Your task to perform on an android device: Clear the cart on bestbuy. Search for "amazon basics triple a" on bestbuy, select the first entry, add it to the cart, then select checkout. Image 0: 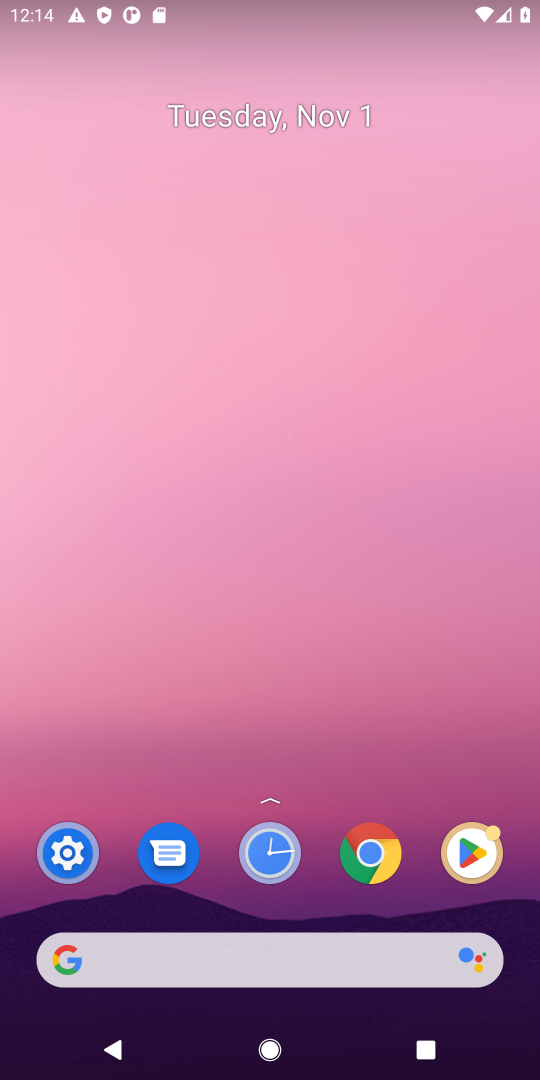
Step 0: click (312, 954)
Your task to perform on an android device: Clear the cart on bestbuy. Search for "amazon basics triple a" on bestbuy, select the first entry, add it to the cart, then select checkout. Image 1: 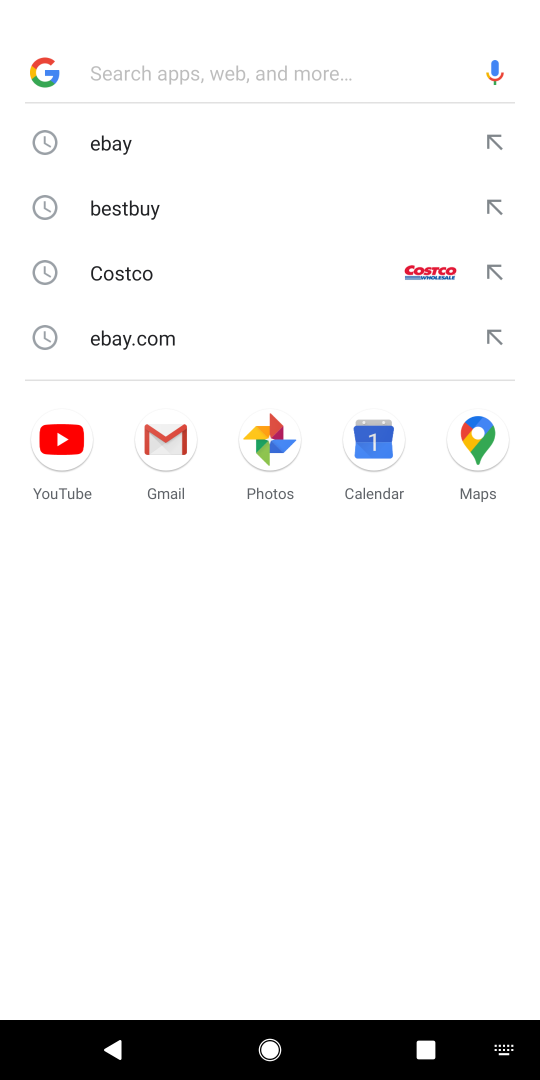
Step 1: click (102, 220)
Your task to perform on an android device: Clear the cart on bestbuy. Search for "amazon basics triple a" on bestbuy, select the first entry, add it to the cart, then select checkout. Image 2: 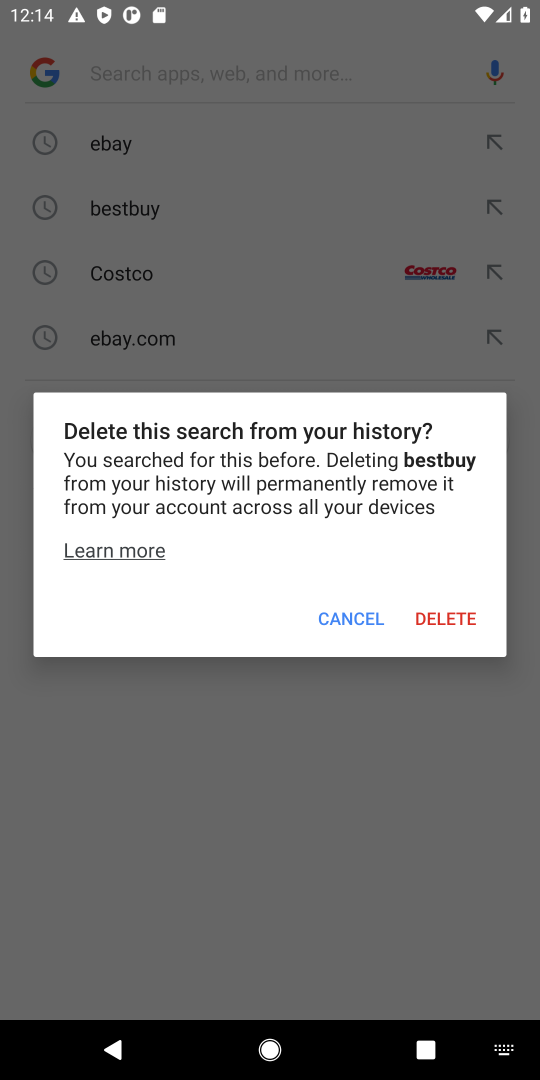
Step 2: click (358, 614)
Your task to perform on an android device: Clear the cart on bestbuy. Search for "amazon basics triple a" on bestbuy, select the first entry, add it to the cart, then select checkout. Image 3: 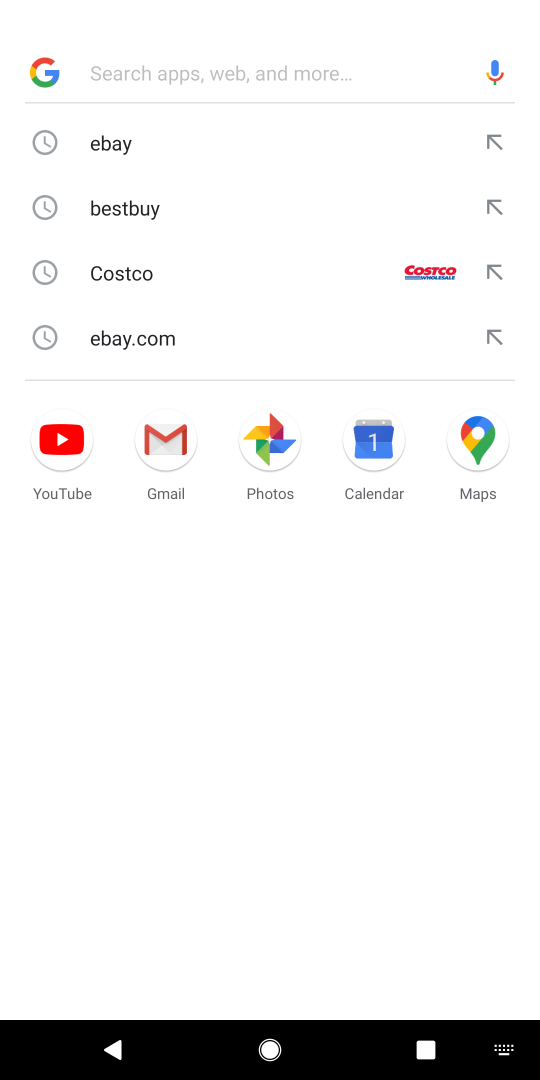
Step 3: click (167, 217)
Your task to perform on an android device: Clear the cart on bestbuy. Search for "amazon basics triple a" on bestbuy, select the first entry, add it to the cart, then select checkout. Image 4: 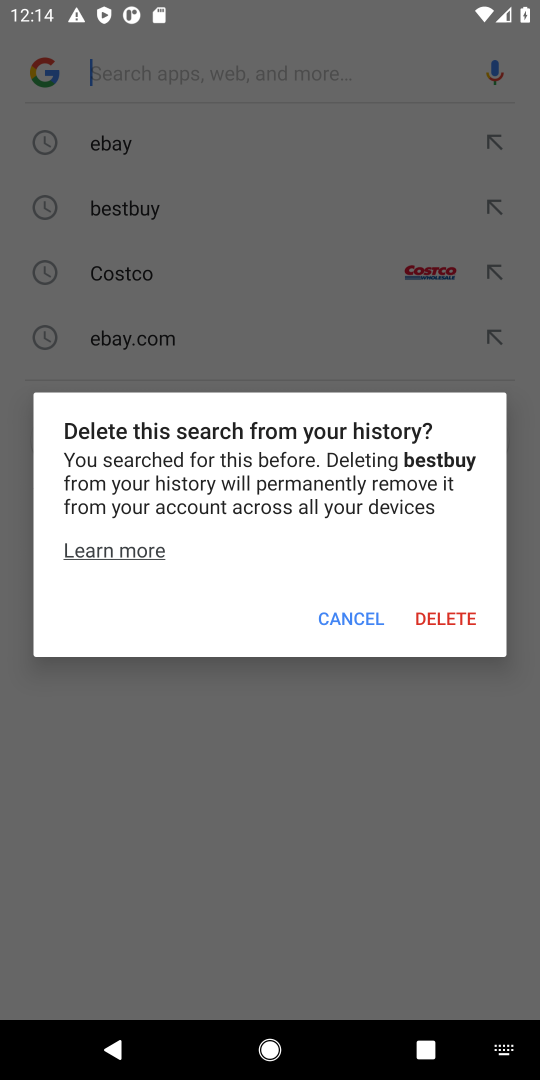
Step 4: click (146, 217)
Your task to perform on an android device: Clear the cart on bestbuy. Search for "amazon basics triple a" on bestbuy, select the first entry, add it to the cart, then select checkout. Image 5: 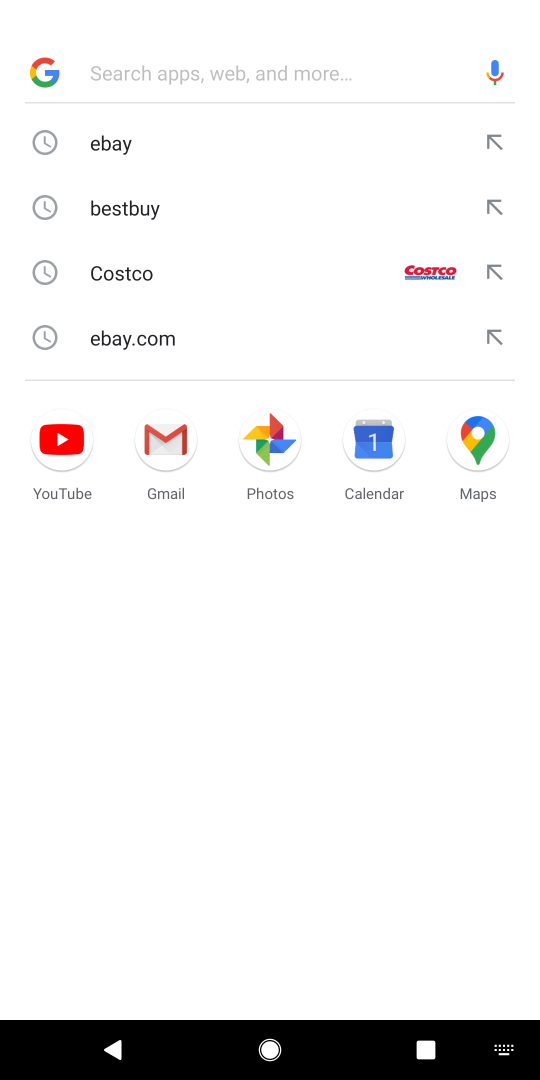
Step 5: click (359, 611)
Your task to perform on an android device: Clear the cart on bestbuy. Search for "amazon basics triple a" on bestbuy, select the first entry, add it to the cart, then select checkout. Image 6: 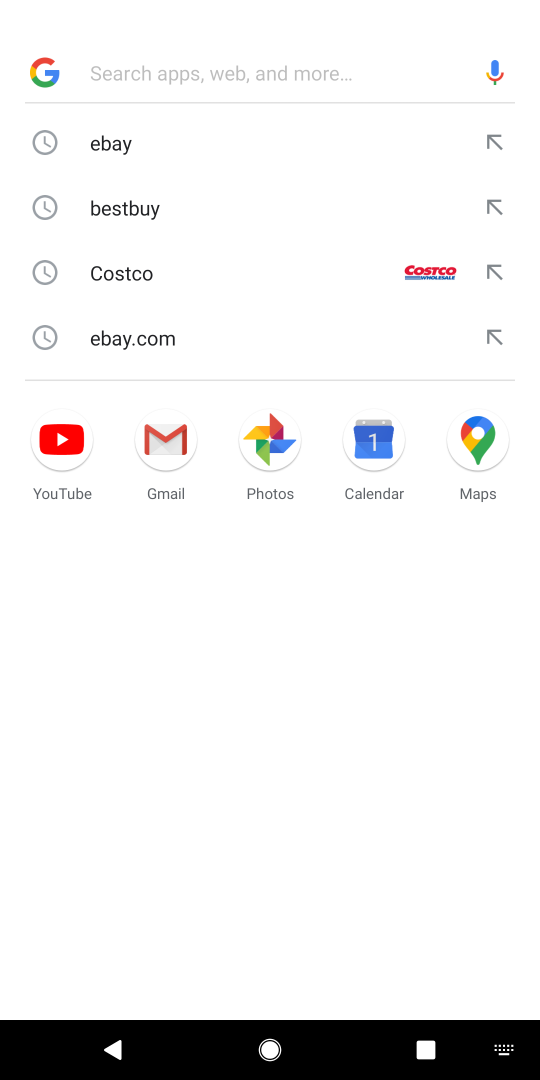
Step 6: type "bose quietcomfort 35"
Your task to perform on an android device: Clear the cart on bestbuy. Search for "amazon basics triple a" on bestbuy, select the first entry, add it to the cart, then select checkout. Image 7: 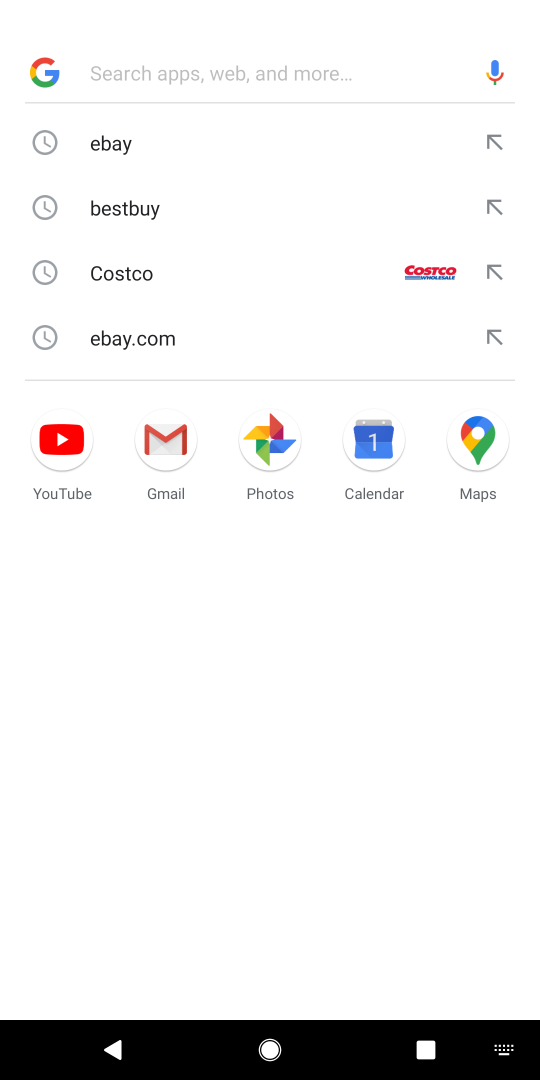
Step 7: click (169, 92)
Your task to perform on an android device: Clear the cart on bestbuy. Search for "amazon basics triple a" on bestbuy, select the first entry, add it to the cart, then select checkout. Image 8: 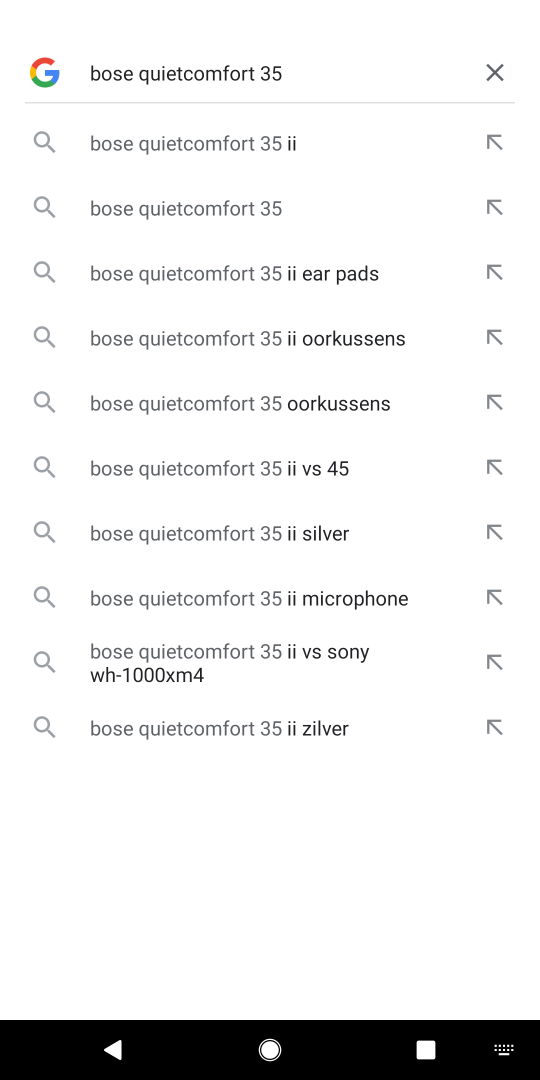
Step 8: type "bestbuy"
Your task to perform on an android device: Clear the cart on bestbuy. Search for "amazon basics triple a" on bestbuy, select the first entry, add it to the cart, then select checkout. Image 9: 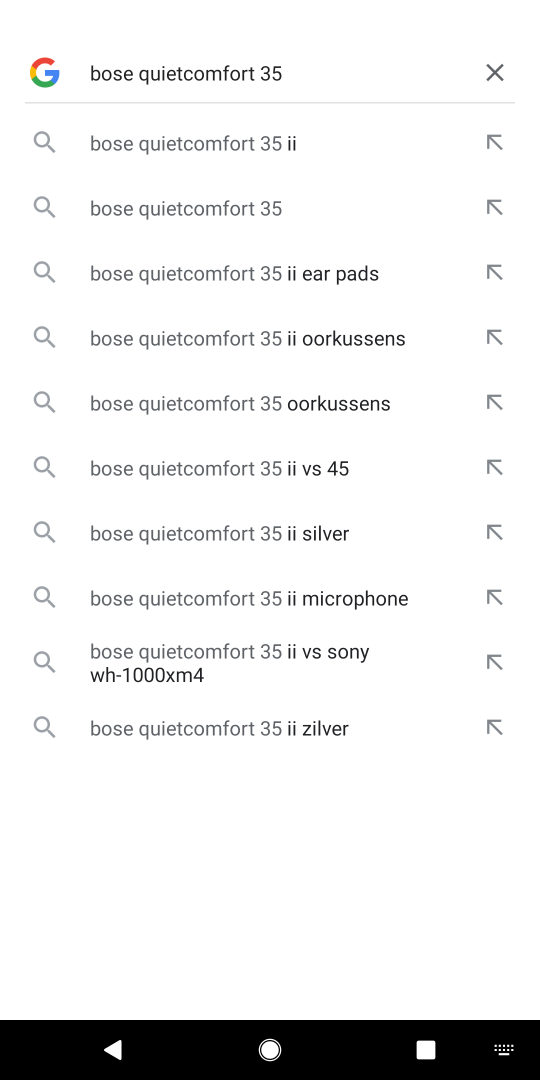
Step 9: click (495, 82)
Your task to perform on an android device: Clear the cart on bestbuy. Search for "amazon basics triple a" on bestbuy, select the first entry, add it to the cart, then select checkout. Image 10: 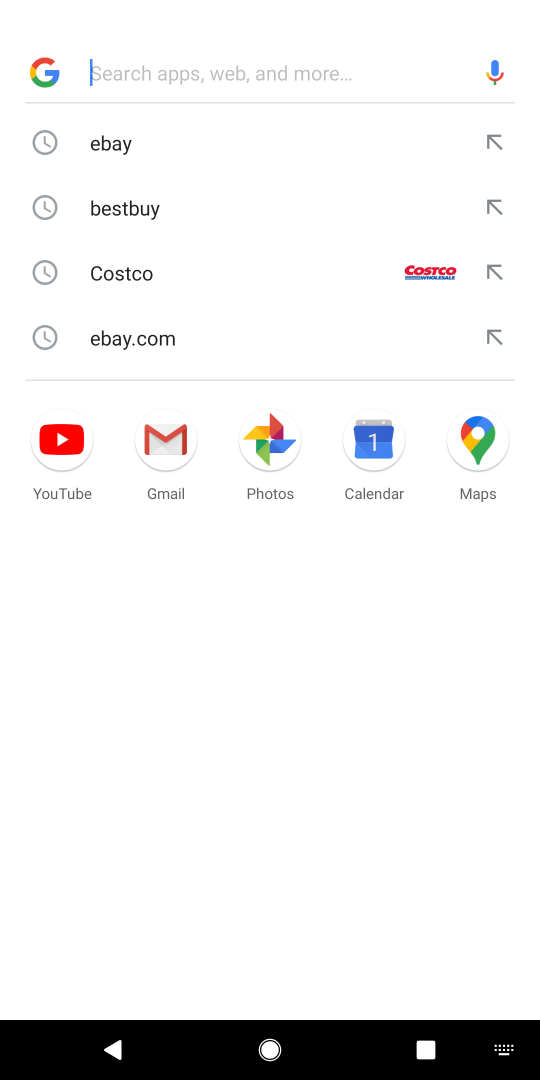
Step 10: click (484, 75)
Your task to perform on an android device: Clear the cart on bestbuy. Search for "amazon basics triple a" on bestbuy, select the first entry, add it to the cart, then select checkout. Image 11: 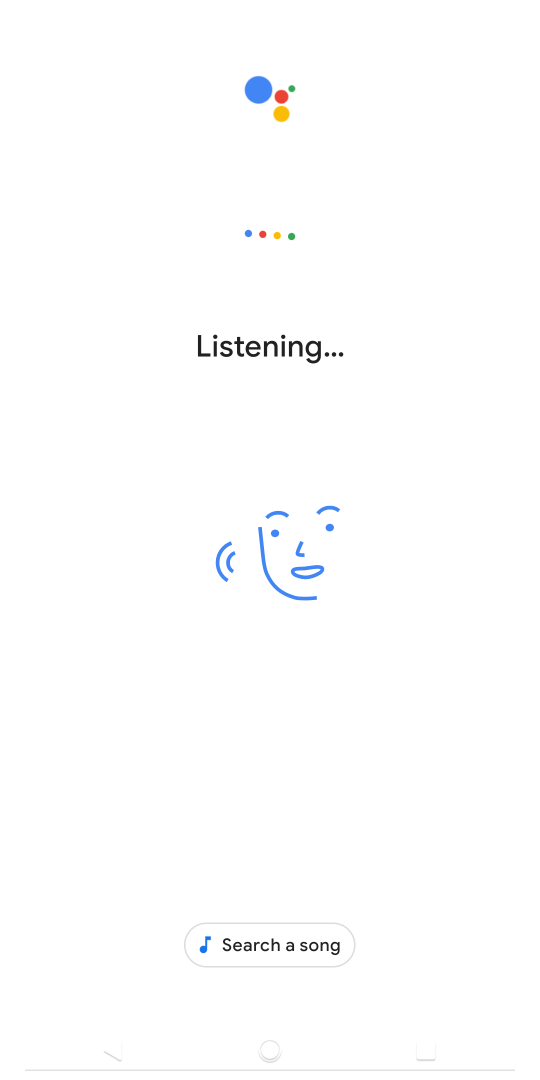
Step 11: press back button
Your task to perform on an android device: Clear the cart on bestbuy. Search for "amazon basics triple a" on bestbuy, select the first entry, add it to the cart, then select checkout. Image 12: 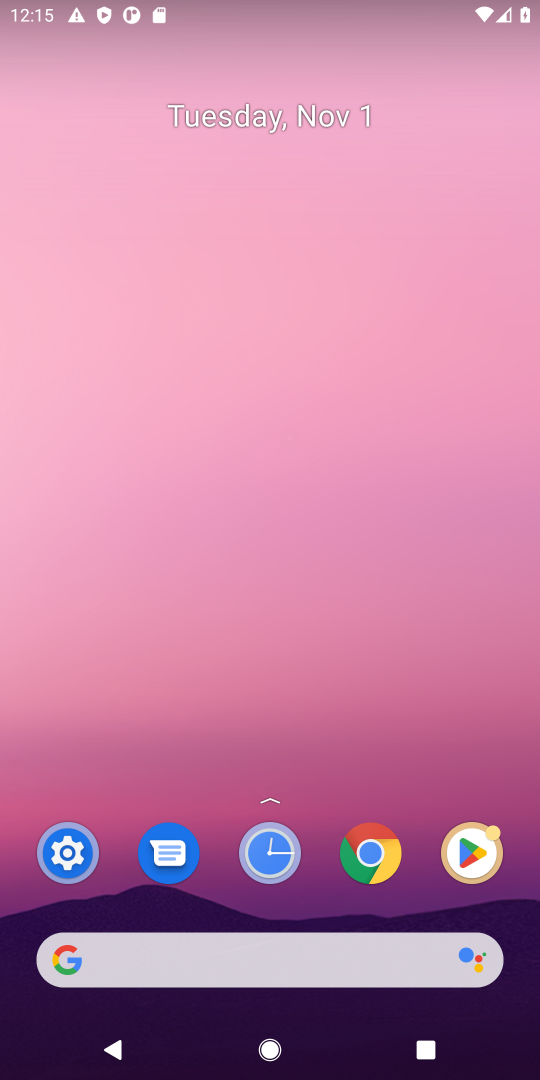
Step 12: click (229, 951)
Your task to perform on an android device: Clear the cart on bestbuy. Search for "amazon basics triple a" on bestbuy, select the first entry, add it to the cart, then select checkout. Image 13: 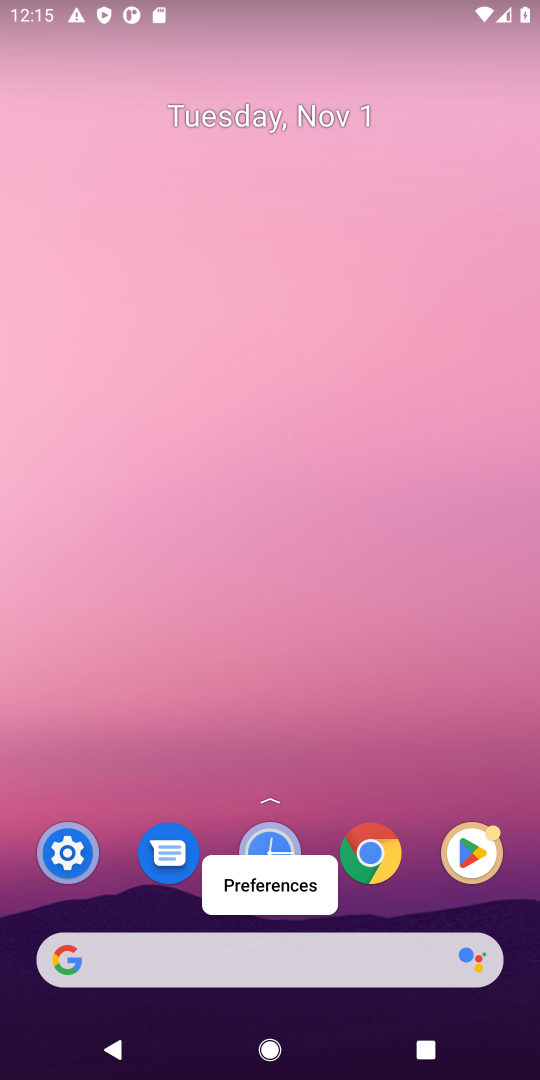
Step 13: click (224, 955)
Your task to perform on an android device: Clear the cart on bestbuy. Search for "amazon basics triple a" on bestbuy, select the first entry, add it to the cart, then select checkout. Image 14: 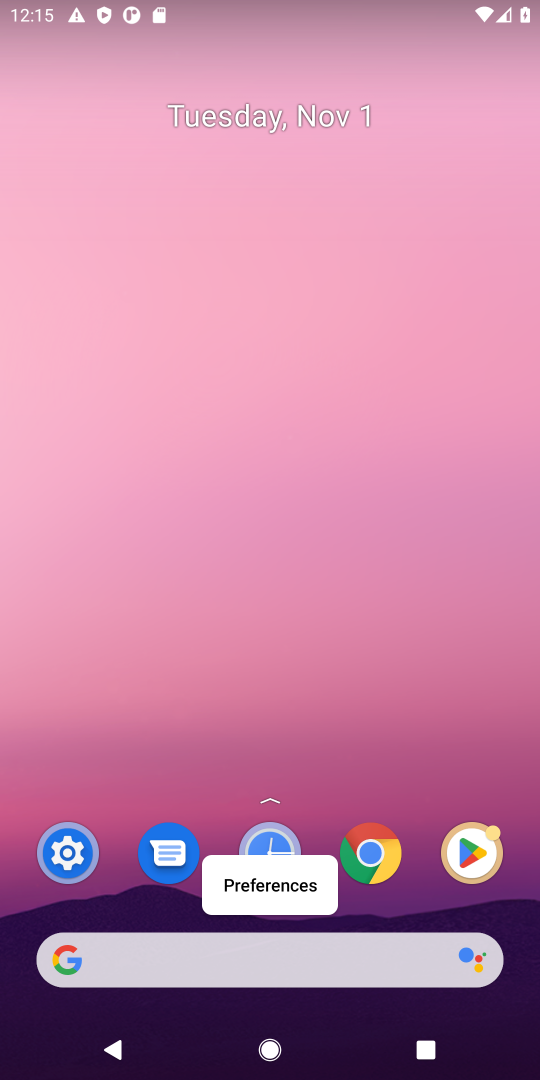
Step 14: click (221, 975)
Your task to perform on an android device: Clear the cart on bestbuy. Search for "amazon basics triple a" on bestbuy, select the first entry, add it to the cart, then select checkout. Image 15: 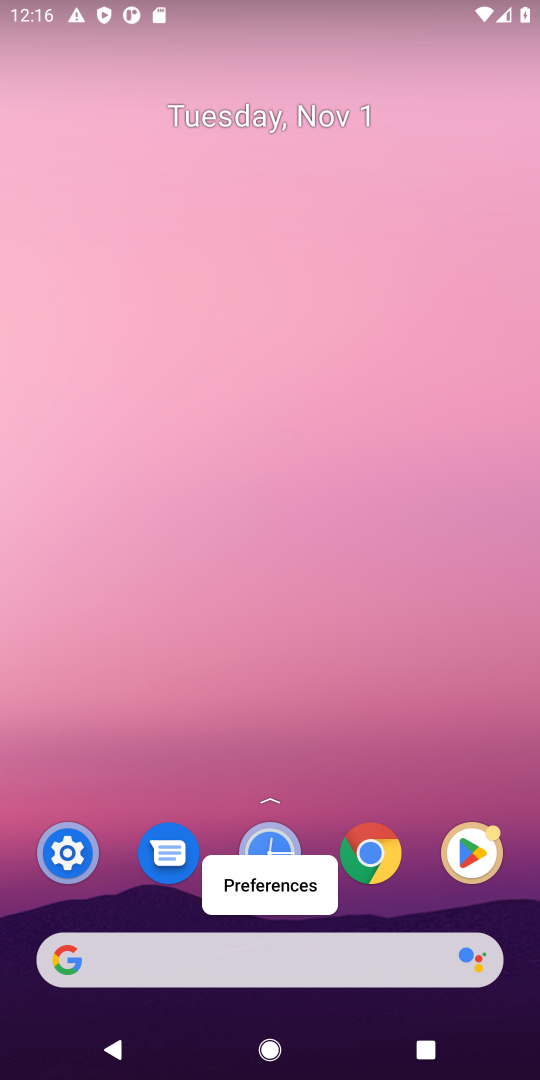
Step 15: click (214, 976)
Your task to perform on an android device: Clear the cart on bestbuy. Search for "amazon basics triple a" on bestbuy, select the first entry, add it to the cart, then select checkout. Image 16: 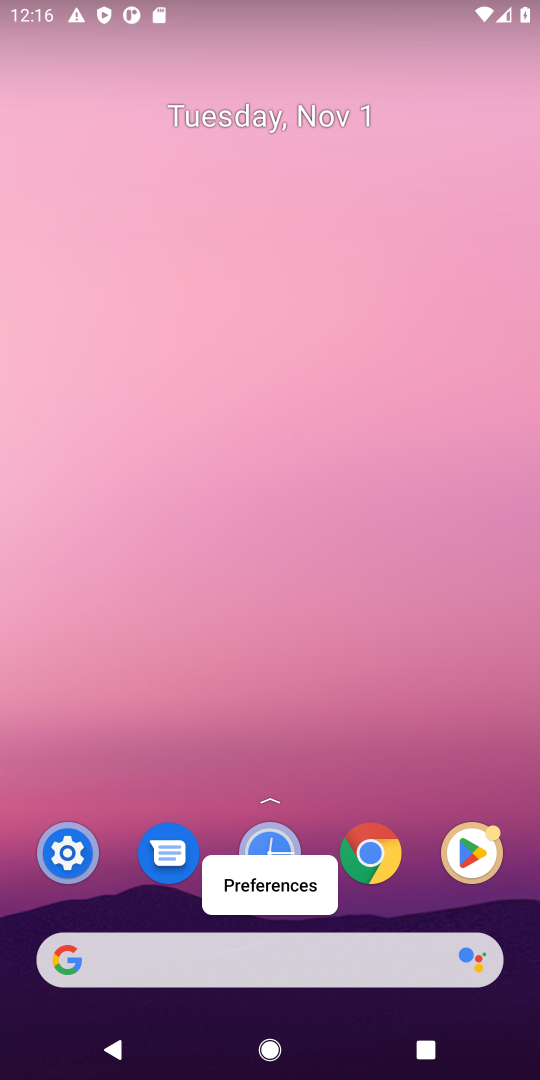
Step 16: click (214, 976)
Your task to perform on an android device: Clear the cart on bestbuy. Search for "amazon basics triple a" on bestbuy, select the first entry, add it to the cart, then select checkout. Image 17: 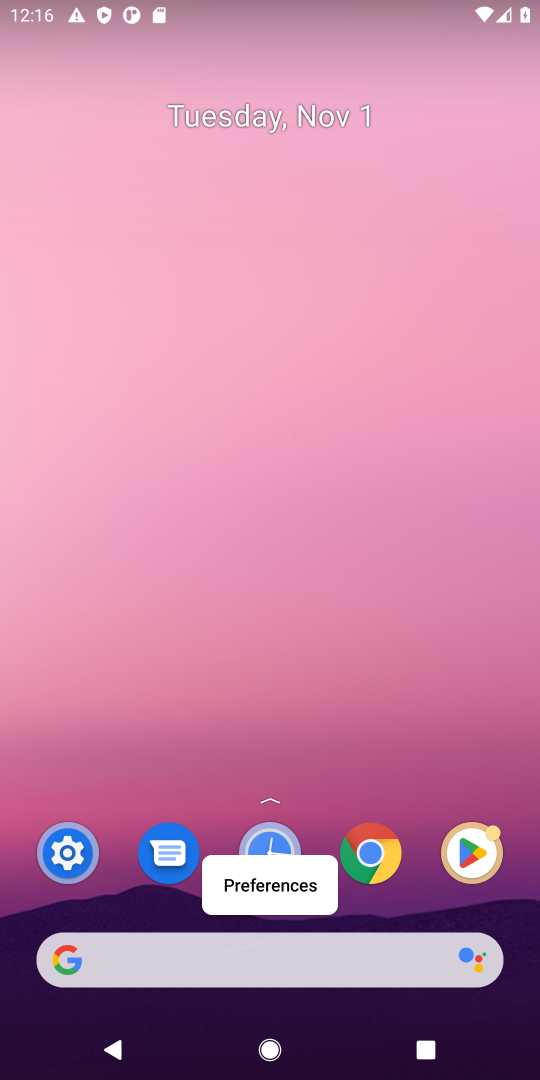
Step 17: click (183, 976)
Your task to perform on an android device: Clear the cart on bestbuy. Search for "amazon basics triple a" on bestbuy, select the first entry, add it to the cart, then select checkout. Image 18: 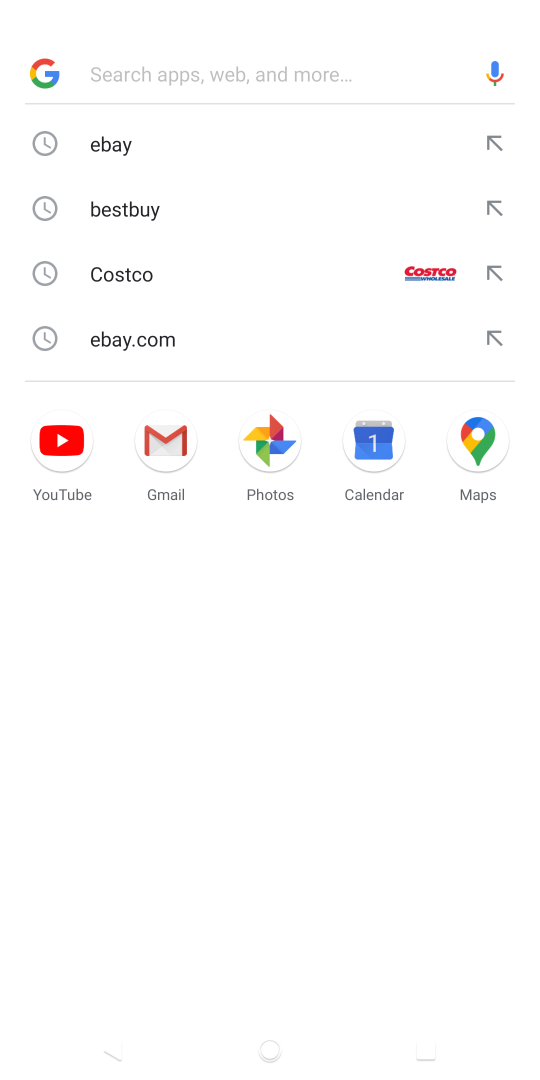
Step 18: click (183, 976)
Your task to perform on an android device: Clear the cart on bestbuy. Search for "amazon basics triple a" on bestbuy, select the first entry, add it to the cart, then select checkout. Image 19: 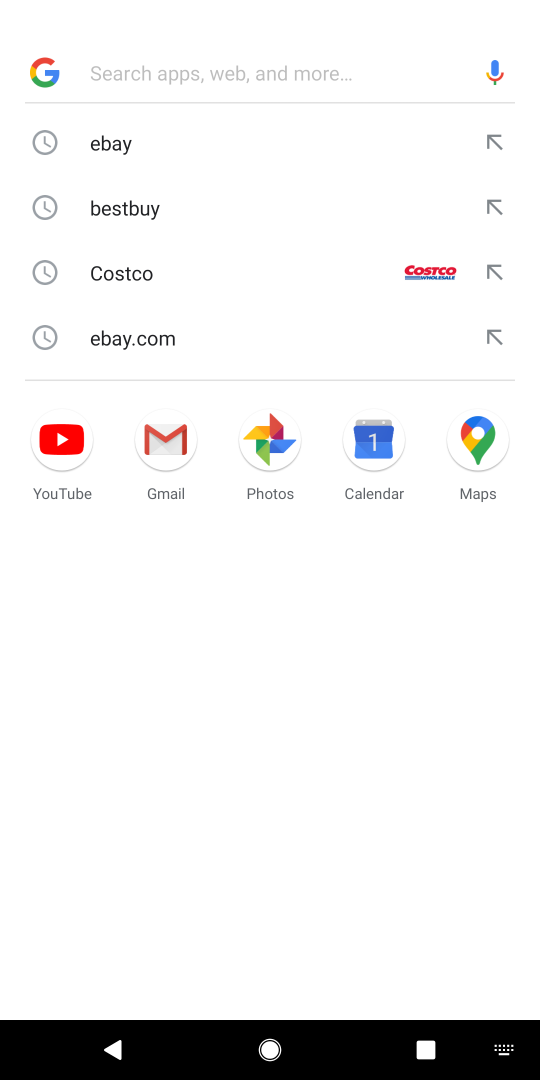
Step 19: type "bestbuy"
Your task to perform on an android device: Clear the cart on bestbuy. Search for "amazon basics triple a" on bestbuy, select the first entry, add it to the cart, then select checkout. Image 20: 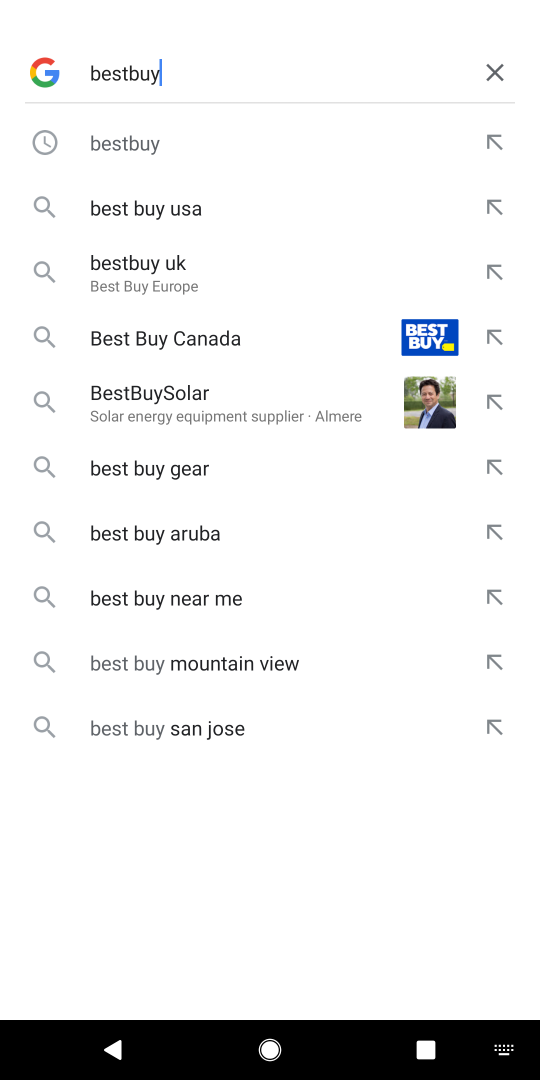
Step 20: press enter
Your task to perform on an android device: Clear the cart on bestbuy. Search for "amazon basics triple a" on bestbuy, select the first entry, add it to the cart, then select checkout. Image 21: 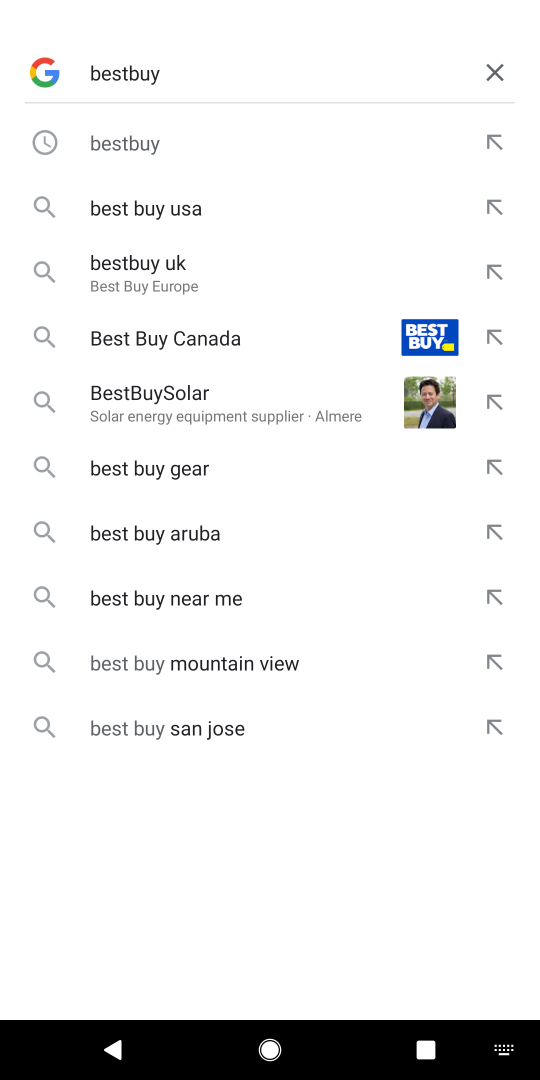
Step 21: type ""
Your task to perform on an android device: Clear the cart on bestbuy. Search for "amazon basics triple a" on bestbuy, select the first entry, add it to the cart, then select checkout. Image 22: 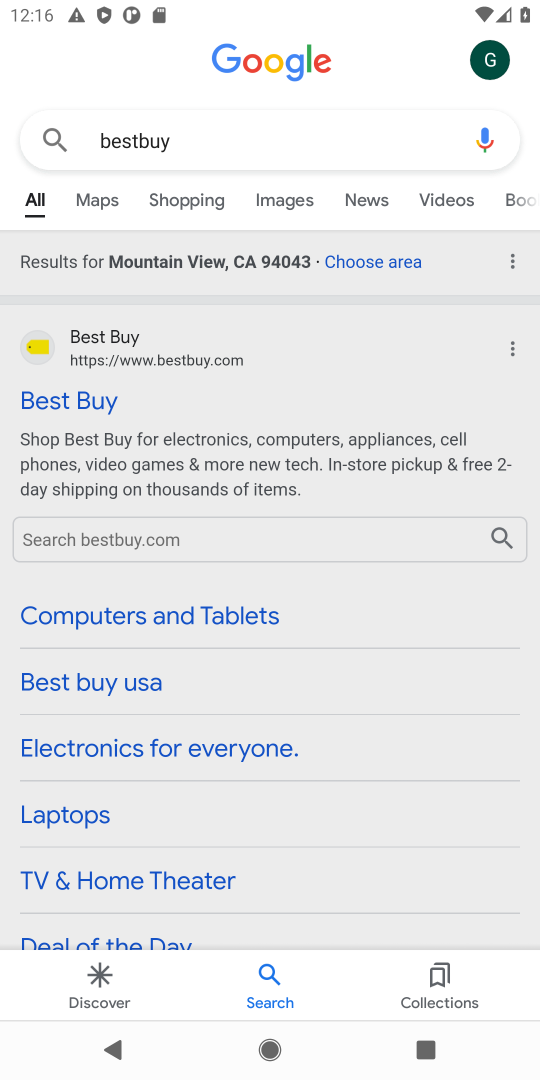
Step 22: press enter
Your task to perform on an android device: Clear the cart on bestbuy. Search for "amazon basics triple a" on bestbuy, select the first entry, add it to the cart, then select checkout. Image 23: 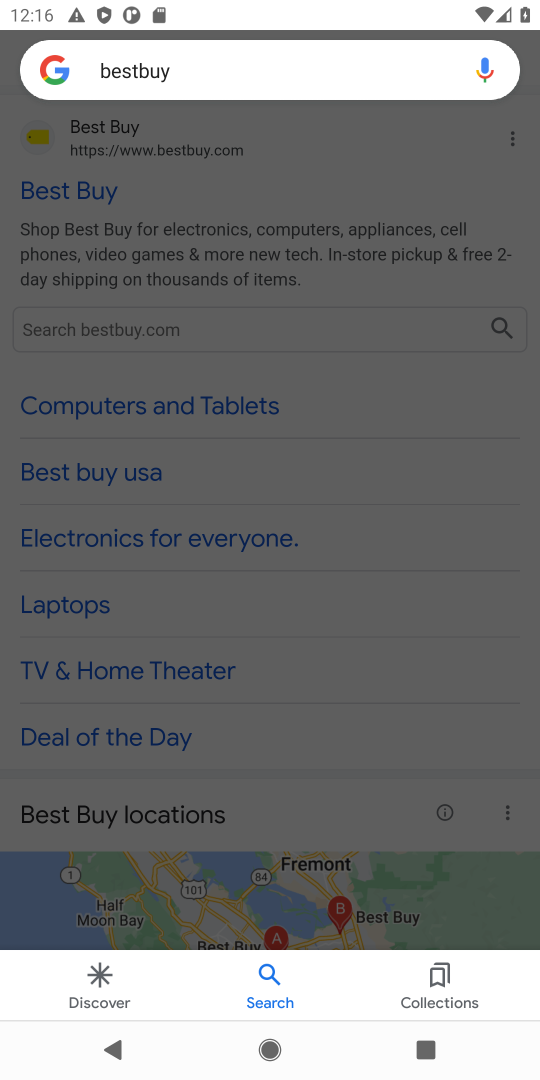
Step 23: click (99, 384)
Your task to perform on an android device: Clear the cart on bestbuy. Search for "amazon basics triple a" on bestbuy, select the first entry, add it to the cart, then select checkout. Image 24: 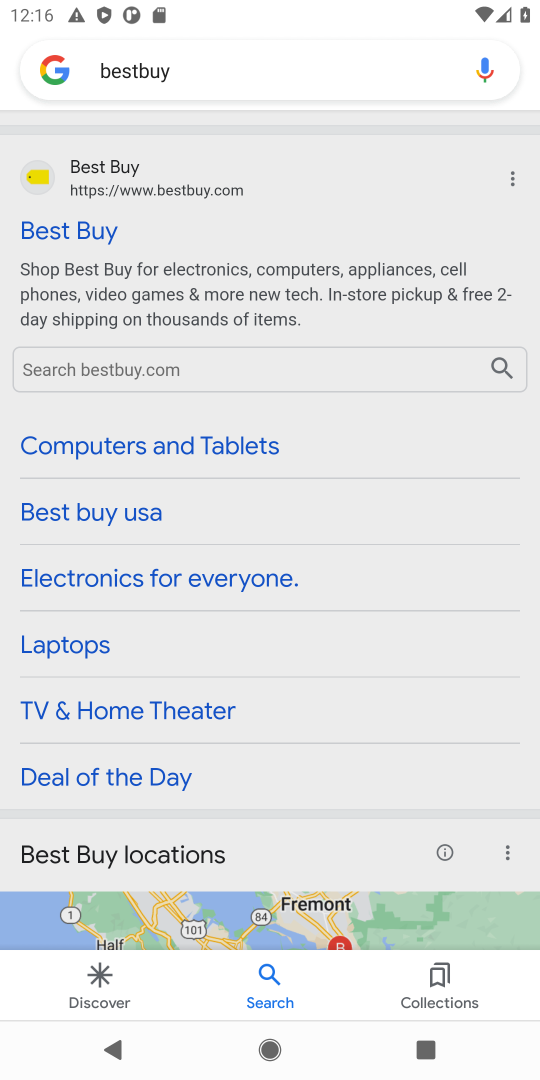
Step 24: click (101, 230)
Your task to perform on an android device: Clear the cart on bestbuy. Search for "amazon basics triple a" on bestbuy, select the first entry, add it to the cart, then select checkout. Image 25: 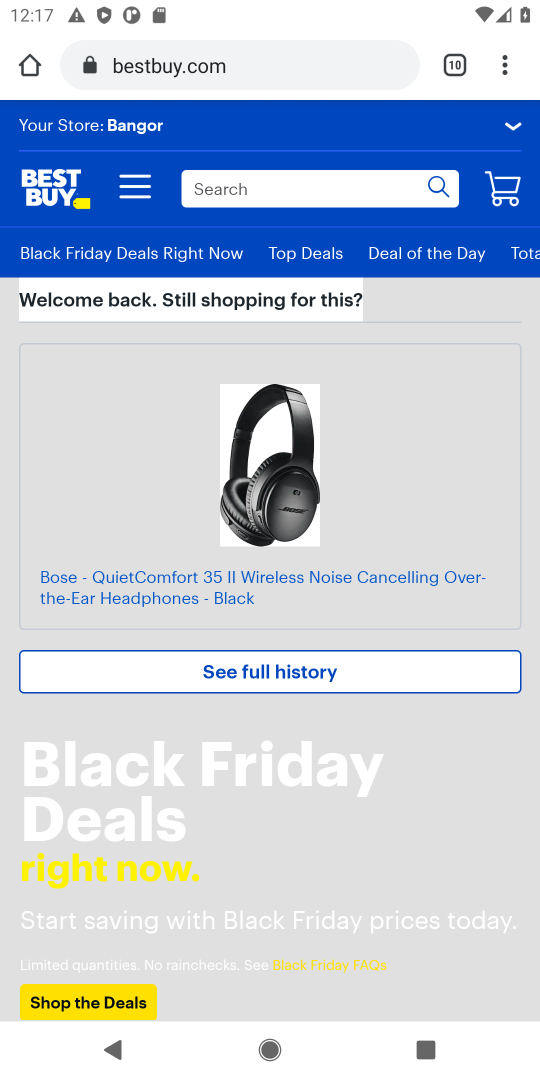
Step 25: click (212, 191)
Your task to perform on an android device: Clear the cart on bestbuy. Search for "amazon basics triple a" on bestbuy, select the first entry, add it to the cart, then select checkout. Image 26: 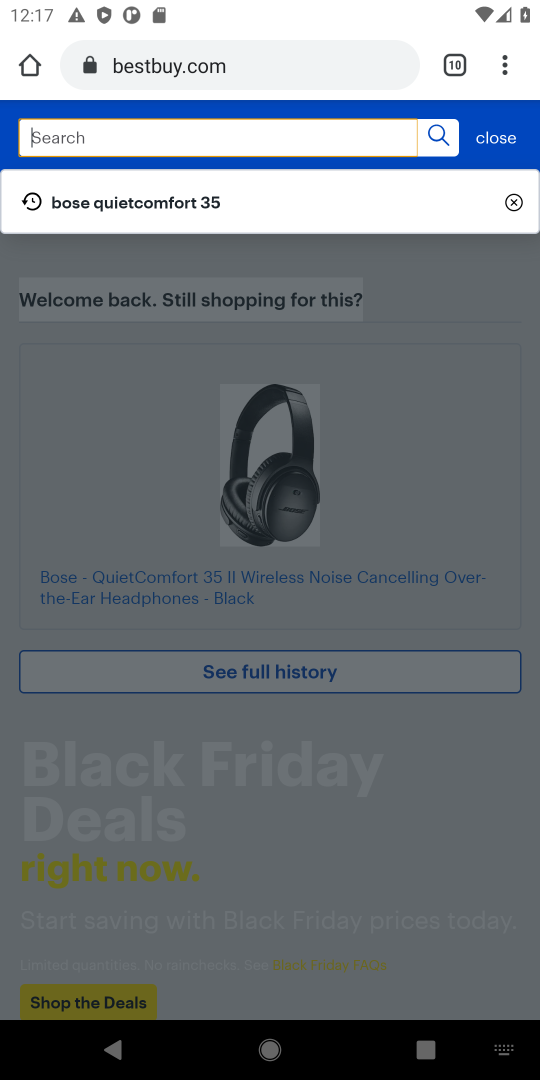
Step 26: type "amazon basics triple a"
Your task to perform on an android device: Clear the cart on bestbuy. Search for "amazon basics triple a" on bestbuy, select the first entry, add it to the cart, then select checkout. Image 27: 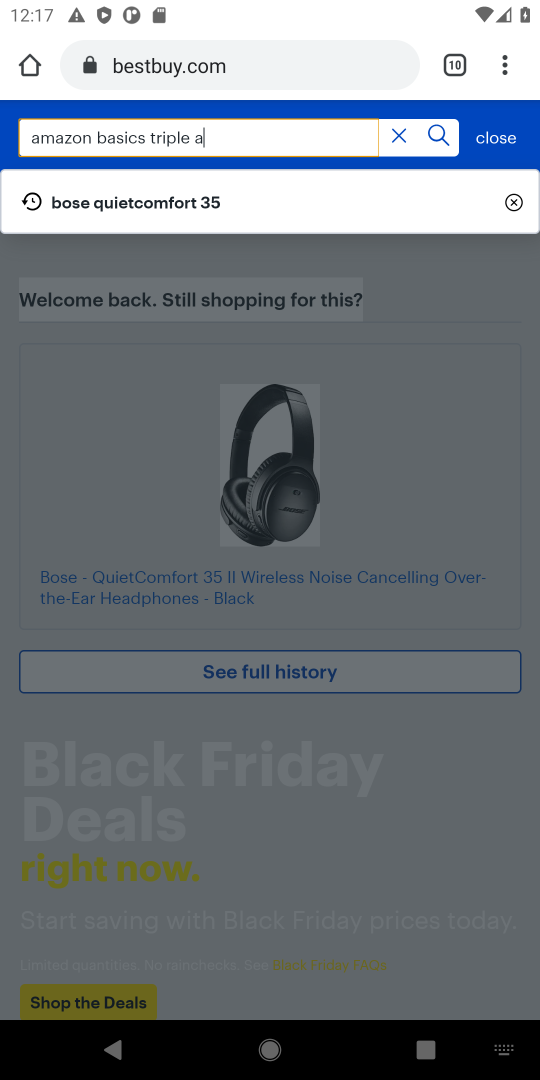
Step 27: type ""
Your task to perform on an android device: Clear the cart on bestbuy. Search for "amazon basics triple a" on bestbuy, select the first entry, add it to the cart, then select checkout. Image 28: 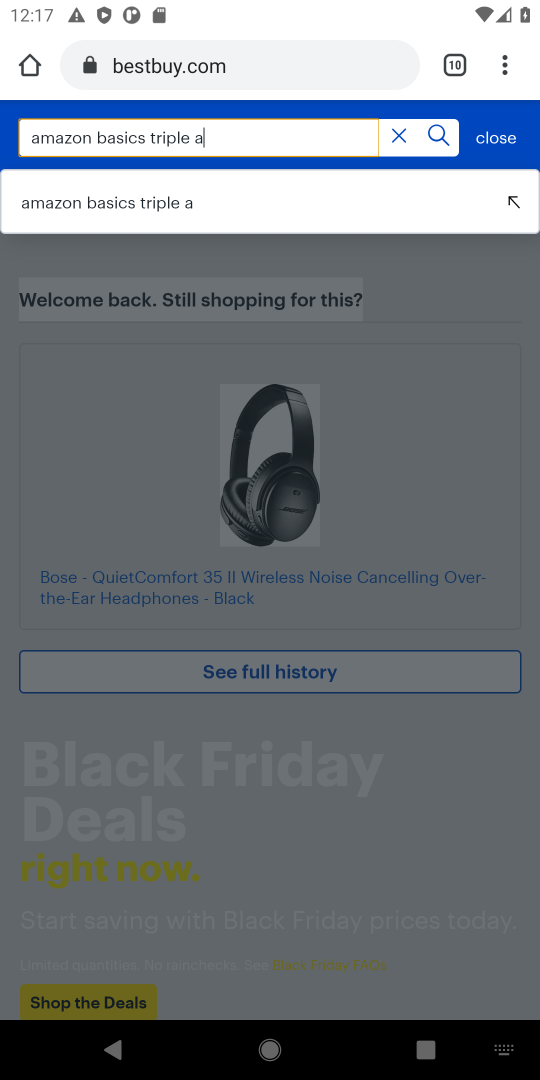
Step 28: type ""
Your task to perform on an android device: Clear the cart on bestbuy. Search for "amazon basics triple a" on bestbuy, select the first entry, add it to the cart, then select checkout. Image 29: 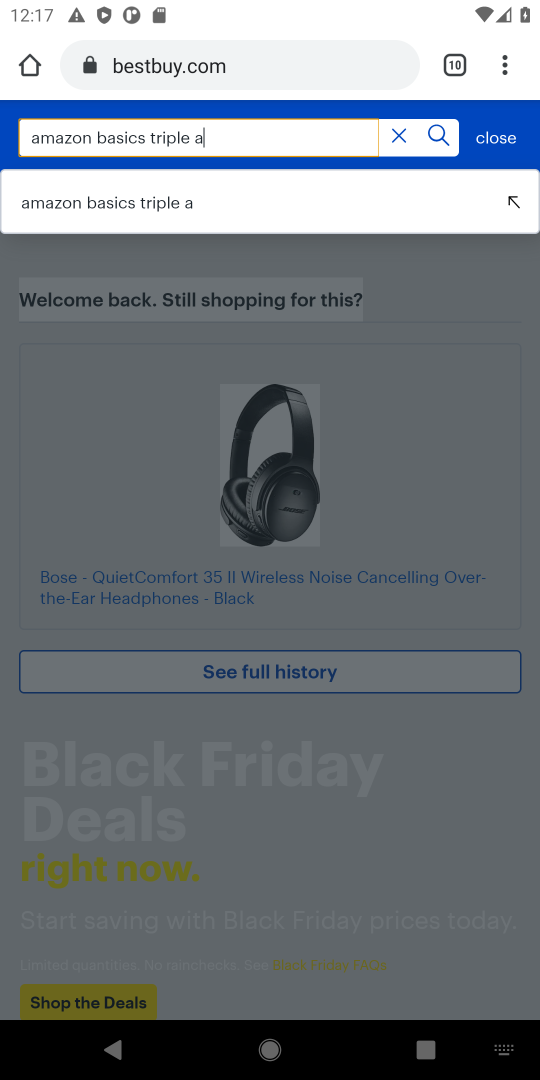
Step 29: type ""
Your task to perform on an android device: Clear the cart on bestbuy. Search for "amazon basics triple a" on bestbuy, select the first entry, add it to the cart, then select checkout. Image 30: 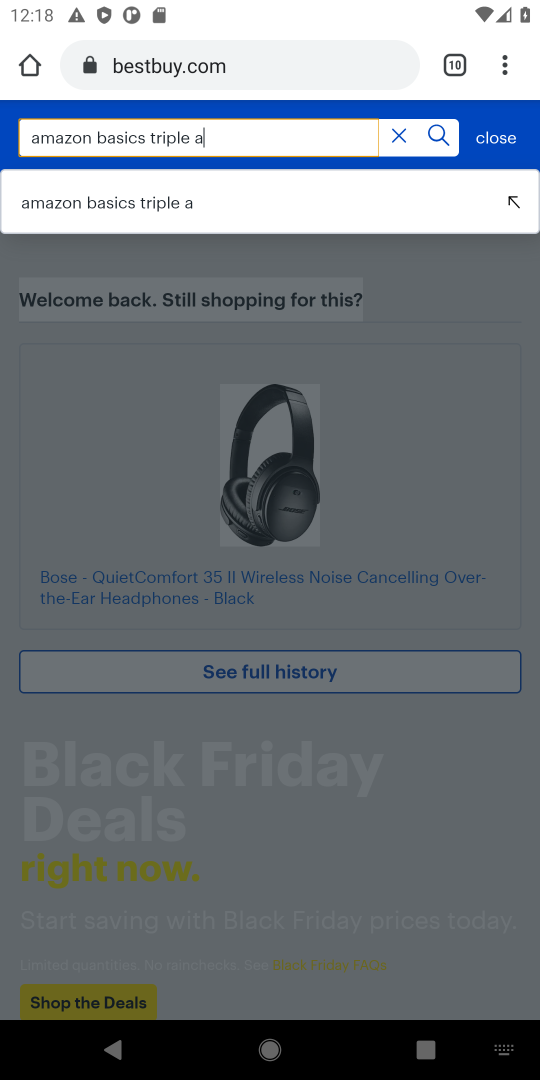
Step 30: press enter
Your task to perform on an android device: Clear the cart on bestbuy. Search for "amazon basics triple a" on bestbuy, select the first entry, add it to the cart, then select checkout. Image 31: 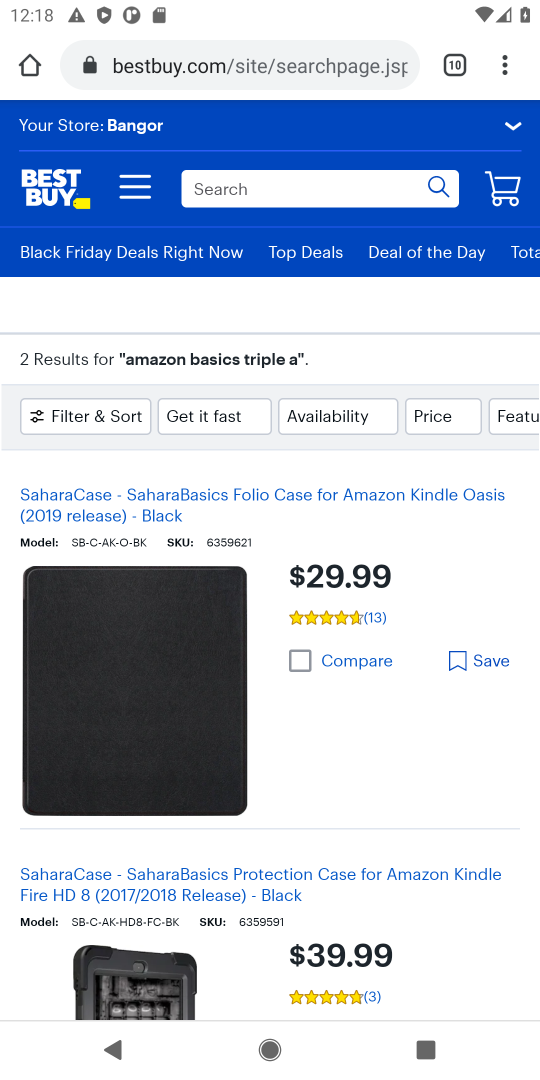
Step 31: task complete